Your task to perform on an android device: change the clock display to analog Image 0: 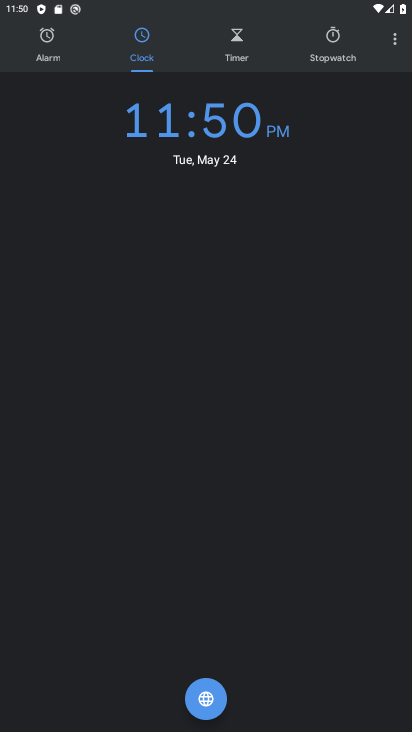
Step 0: click (388, 47)
Your task to perform on an android device: change the clock display to analog Image 1: 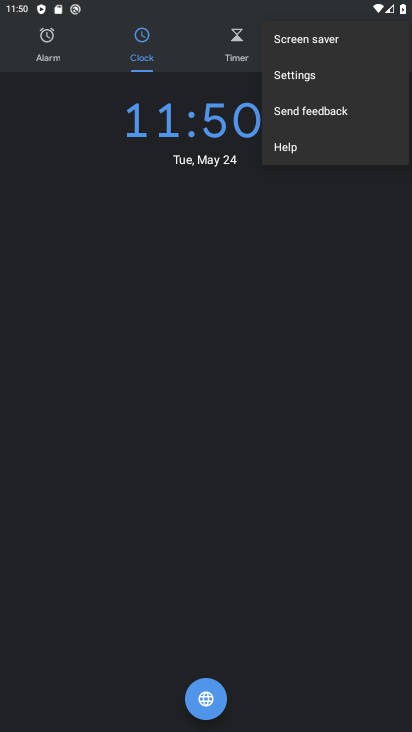
Step 1: click (356, 79)
Your task to perform on an android device: change the clock display to analog Image 2: 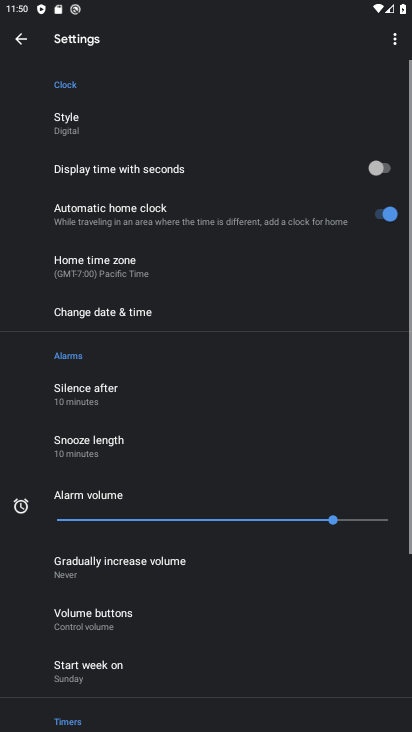
Step 2: click (180, 120)
Your task to perform on an android device: change the clock display to analog Image 3: 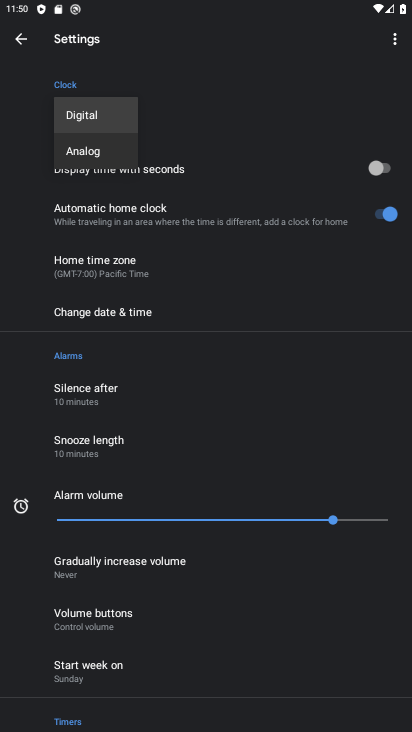
Step 3: click (88, 152)
Your task to perform on an android device: change the clock display to analog Image 4: 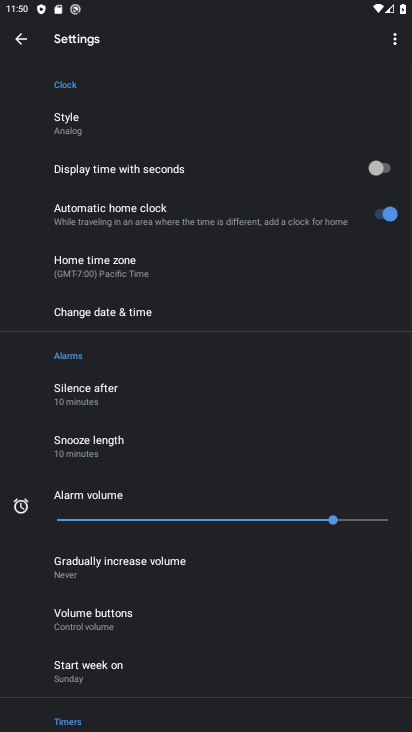
Step 4: task complete